Your task to perform on an android device: check storage Image 0: 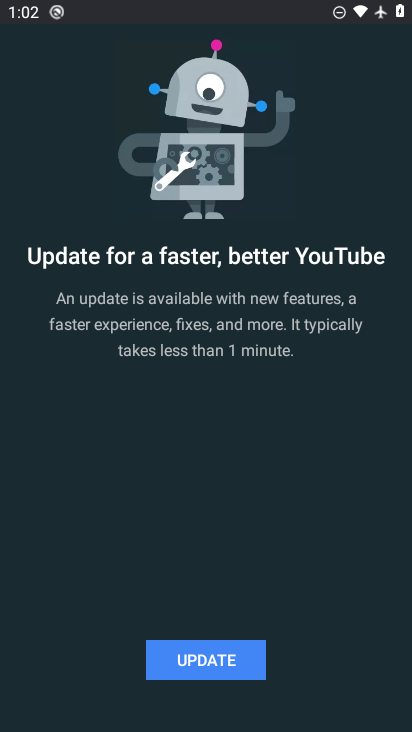
Step 0: press home button
Your task to perform on an android device: check storage Image 1: 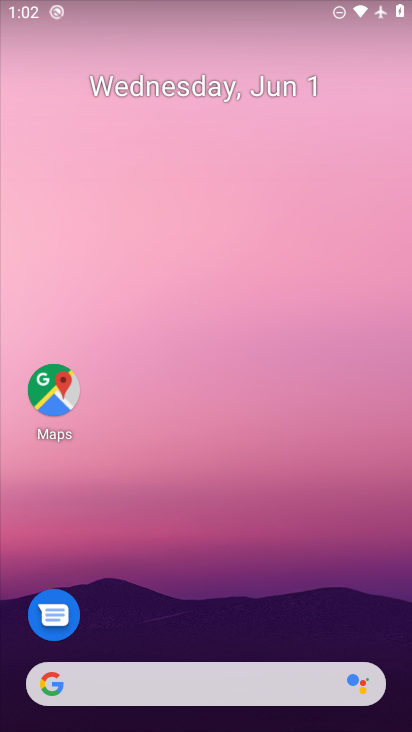
Step 1: drag from (230, 622) to (368, 18)
Your task to perform on an android device: check storage Image 2: 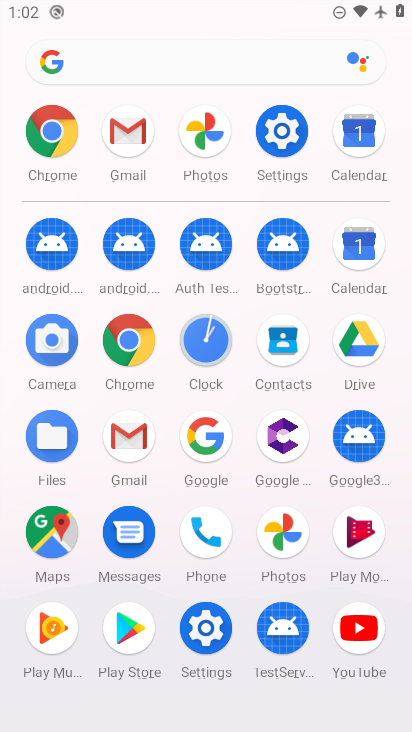
Step 2: click (272, 132)
Your task to perform on an android device: check storage Image 3: 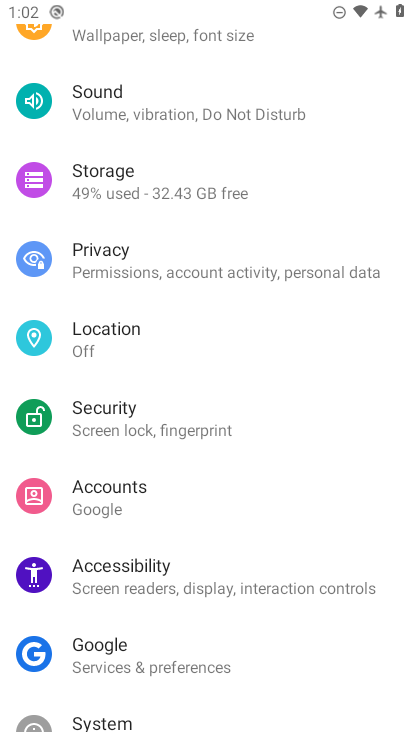
Step 3: click (162, 175)
Your task to perform on an android device: check storage Image 4: 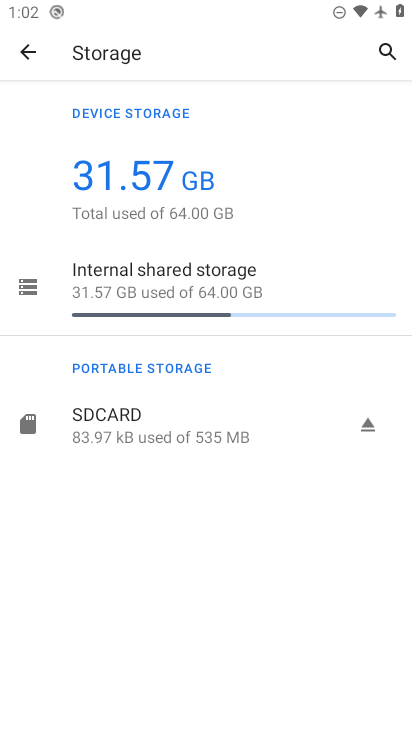
Step 4: task complete